Your task to perform on an android device: toggle wifi Image 0: 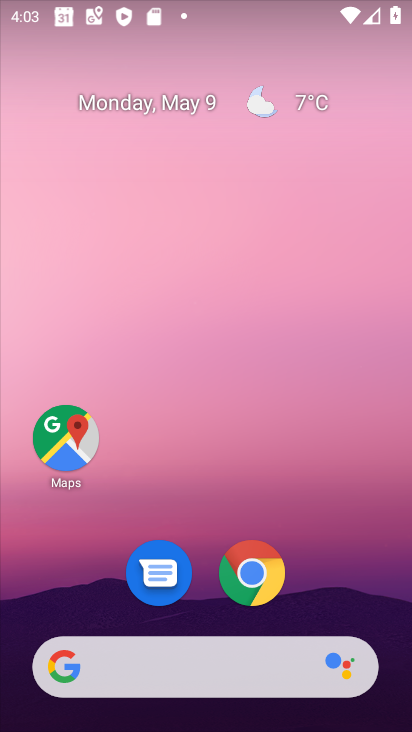
Step 0: drag from (371, 620) to (407, 73)
Your task to perform on an android device: toggle wifi Image 1: 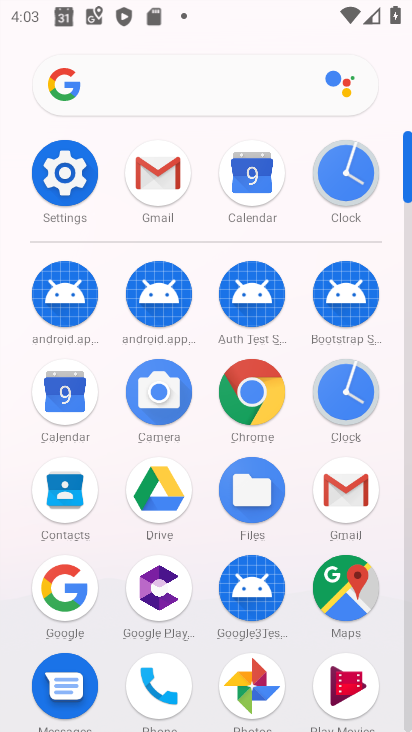
Step 1: click (69, 180)
Your task to perform on an android device: toggle wifi Image 2: 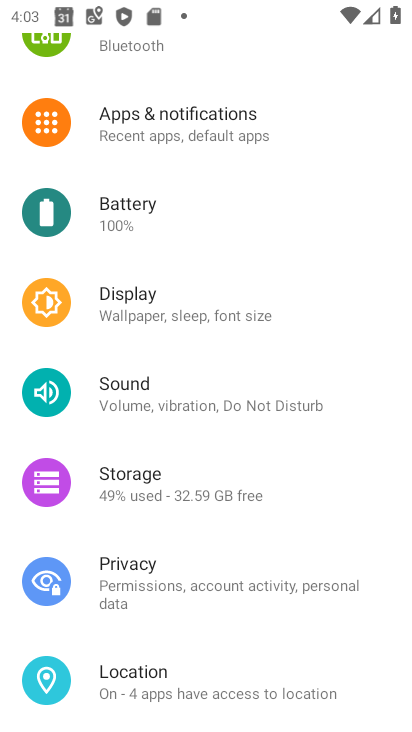
Step 2: drag from (315, 202) to (314, 515)
Your task to perform on an android device: toggle wifi Image 3: 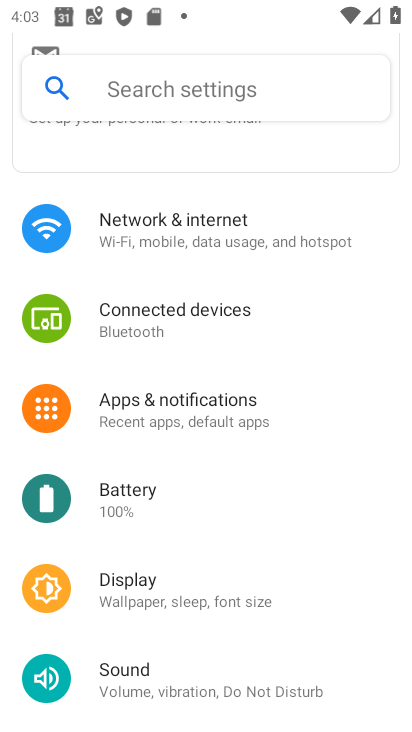
Step 3: click (168, 245)
Your task to perform on an android device: toggle wifi Image 4: 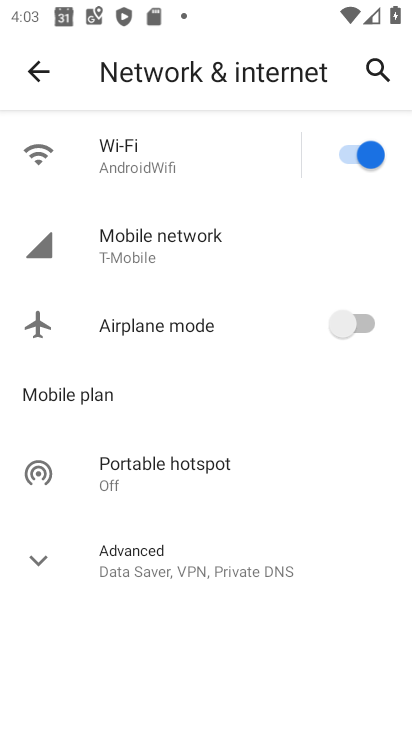
Step 4: click (368, 166)
Your task to perform on an android device: toggle wifi Image 5: 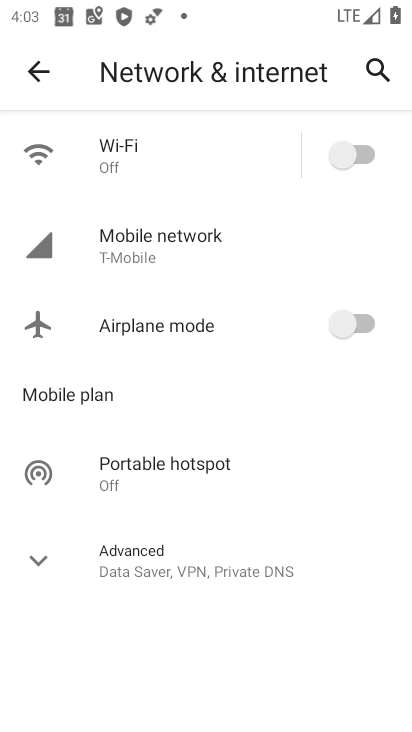
Step 5: task complete